Your task to perform on an android device: Go to privacy settings Image 0: 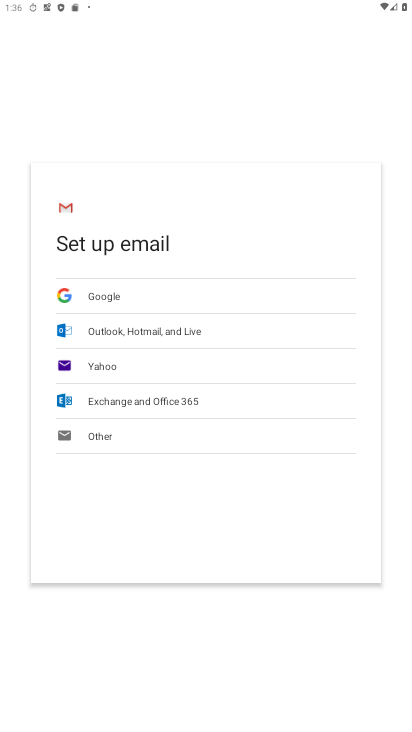
Step 0: press home button
Your task to perform on an android device: Go to privacy settings Image 1: 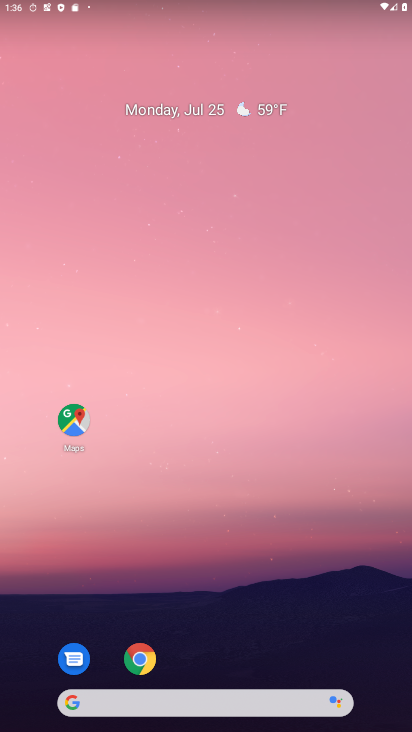
Step 1: drag from (214, 638) to (186, 0)
Your task to perform on an android device: Go to privacy settings Image 2: 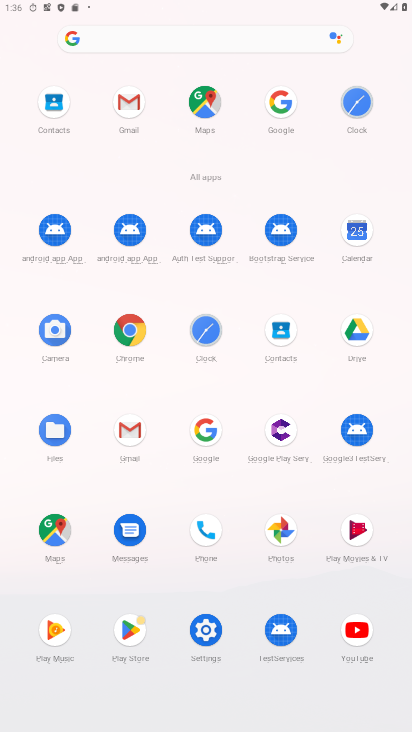
Step 2: click (213, 635)
Your task to perform on an android device: Go to privacy settings Image 3: 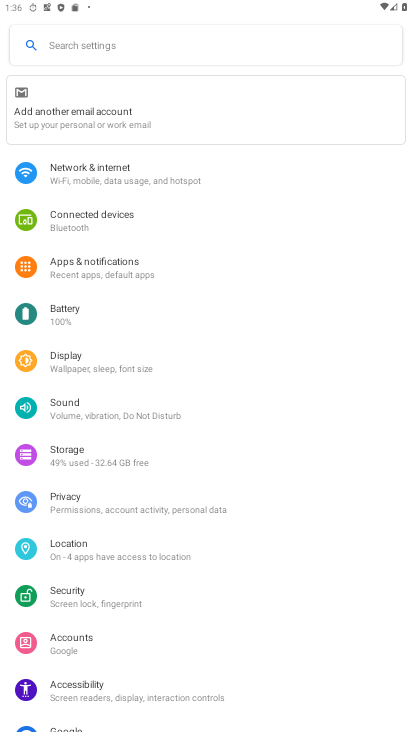
Step 3: click (71, 502)
Your task to perform on an android device: Go to privacy settings Image 4: 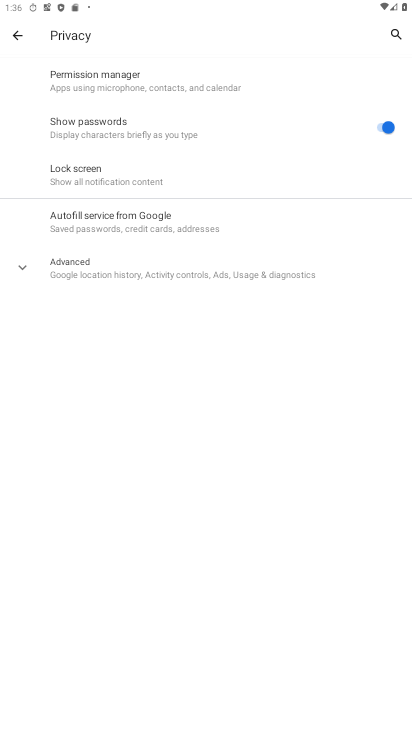
Step 4: task complete